Your task to perform on an android device: Open Google Image 0: 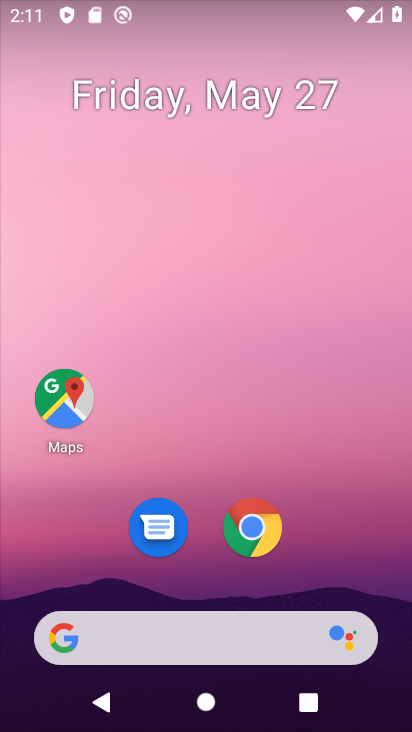
Step 0: drag from (209, 604) to (299, 239)
Your task to perform on an android device: Open Google Image 1: 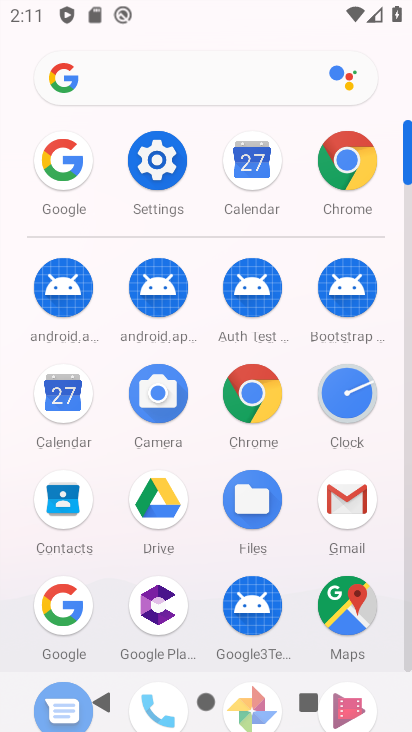
Step 1: click (54, 615)
Your task to perform on an android device: Open Google Image 2: 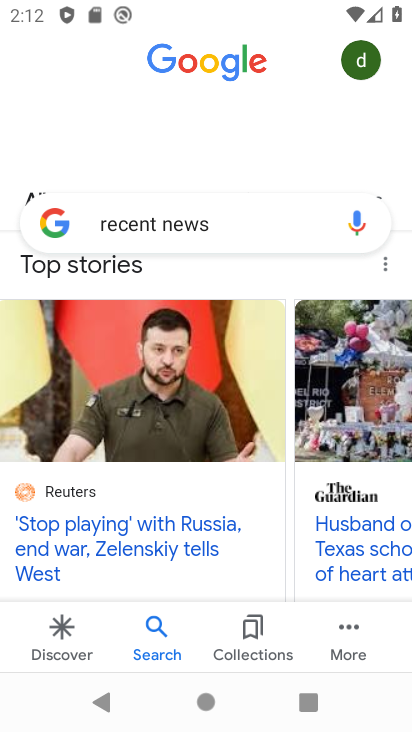
Step 2: task complete